Your task to perform on an android device: open sync settings in chrome Image 0: 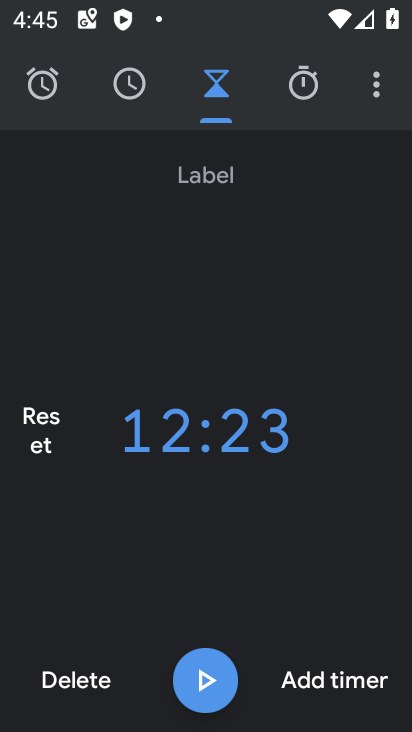
Step 0: press back button
Your task to perform on an android device: open sync settings in chrome Image 1: 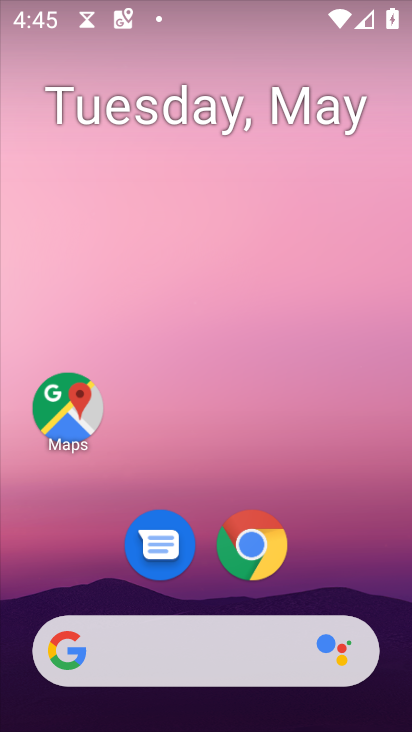
Step 1: click (254, 543)
Your task to perform on an android device: open sync settings in chrome Image 2: 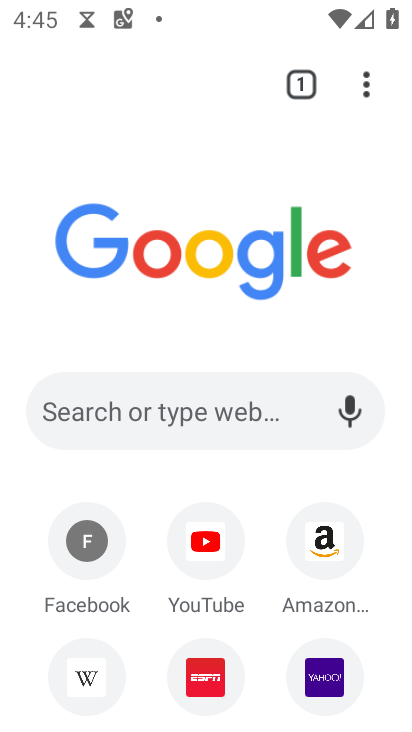
Step 2: click (364, 83)
Your task to perform on an android device: open sync settings in chrome Image 3: 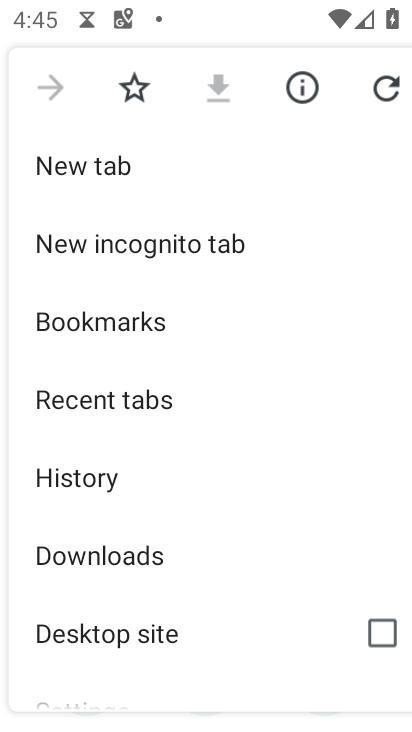
Step 3: drag from (106, 595) to (165, 418)
Your task to perform on an android device: open sync settings in chrome Image 4: 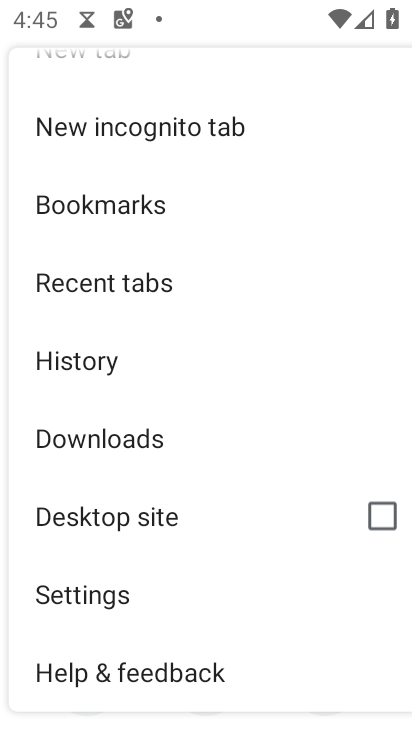
Step 4: click (77, 587)
Your task to perform on an android device: open sync settings in chrome Image 5: 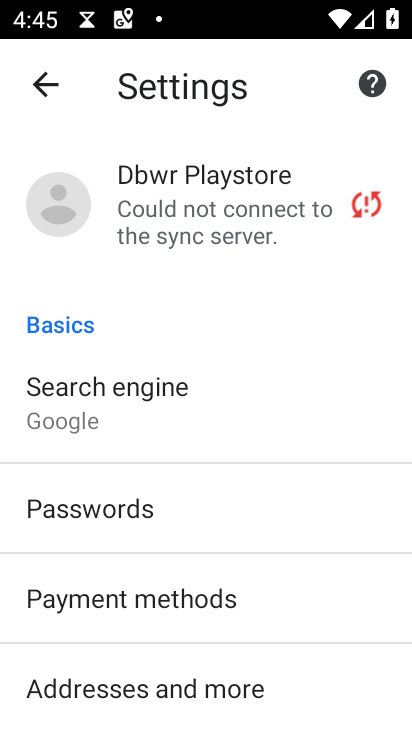
Step 5: drag from (112, 571) to (181, 434)
Your task to perform on an android device: open sync settings in chrome Image 6: 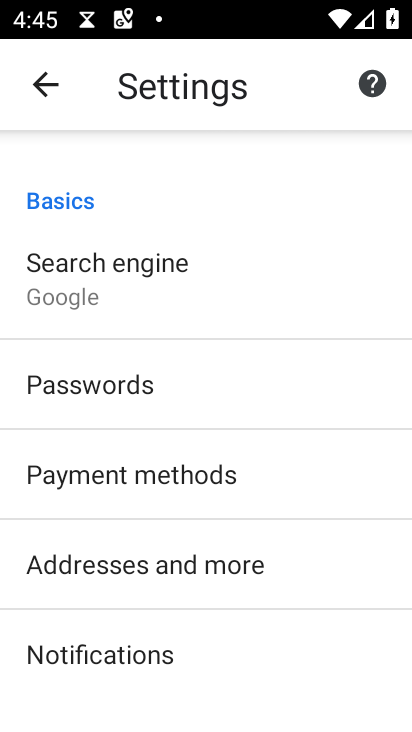
Step 6: drag from (128, 614) to (191, 483)
Your task to perform on an android device: open sync settings in chrome Image 7: 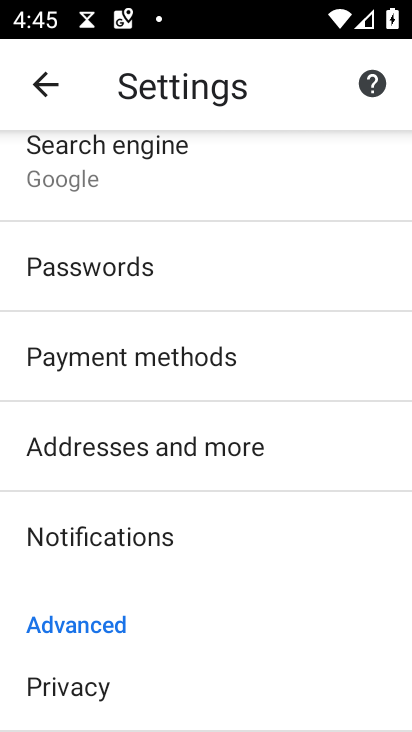
Step 7: drag from (114, 640) to (185, 514)
Your task to perform on an android device: open sync settings in chrome Image 8: 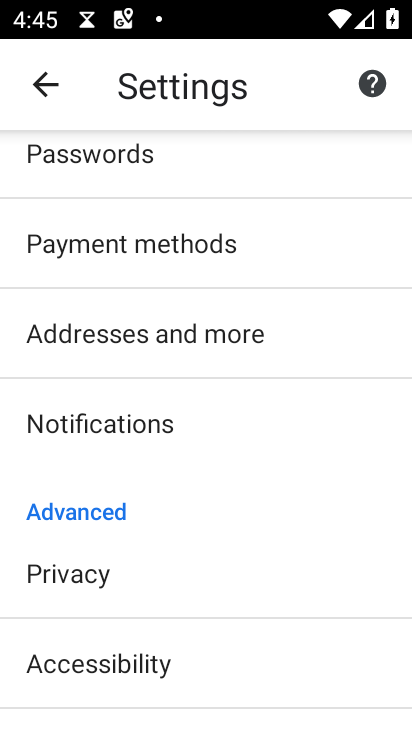
Step 8: drag from (127, 590) to (204, 472)
Your task to perform on an android device: open sync settings in chrome Image 9: 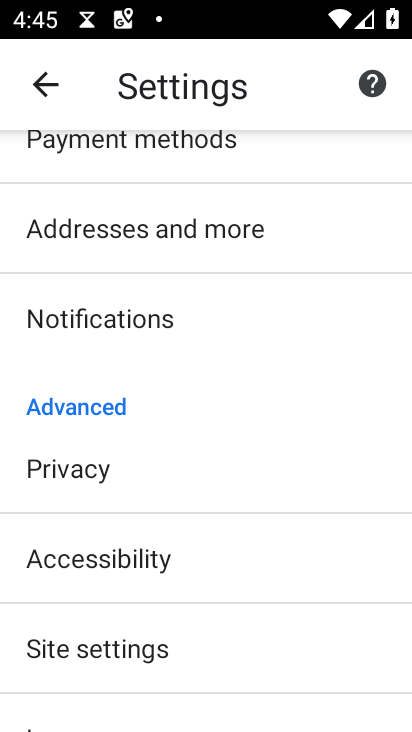
Step 9: click (94, 650)
Your task to perform on an android device: open sync settings in chrome Image 10: 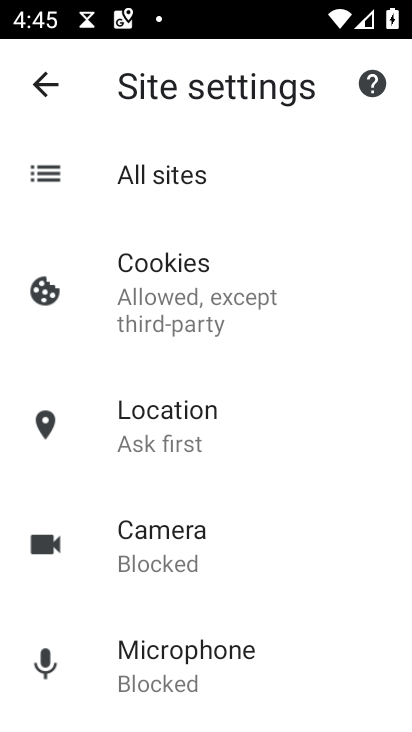
Step 10: drag from (249, 594) to (283, 447)
Your task to perform on an android device: open sync settings in chrome Image 11: 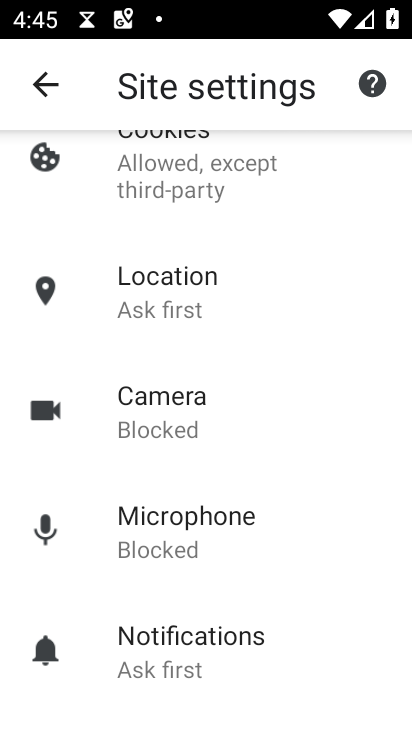
Step 11: drag from (193, 586) to (264, 444)
Your task to perform on an android device: open sync settings in chrome Image 12: 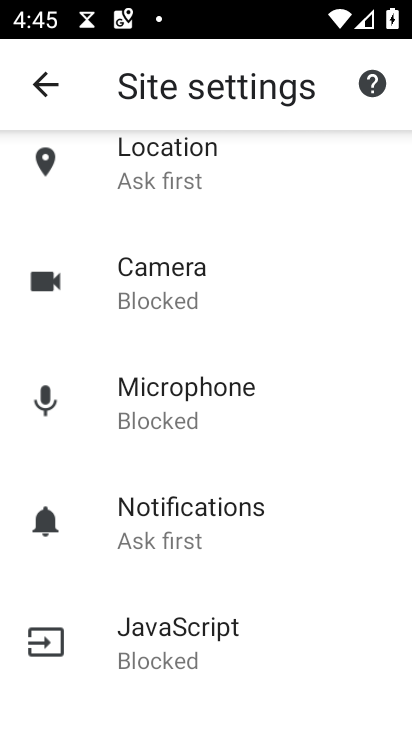
Step 12: drag from (182, 590) to (246, 457)
Your task to perform on an android device: open sync settings in chrome Image 13: 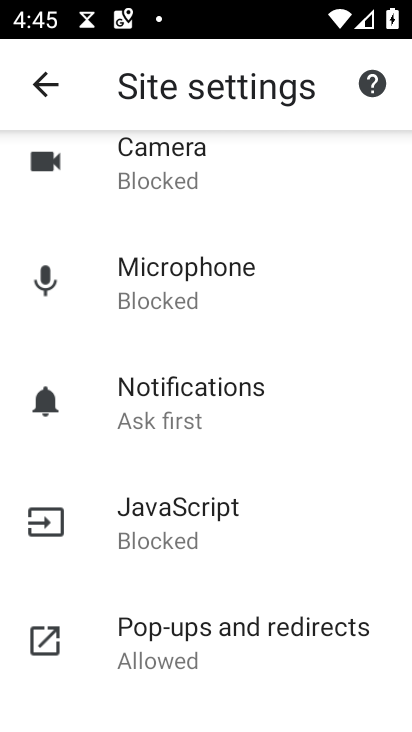
Step 13: drag from (208, 680) to (248, 523)
Your task to perform on an android device: open sync settings in chrome Image 14: 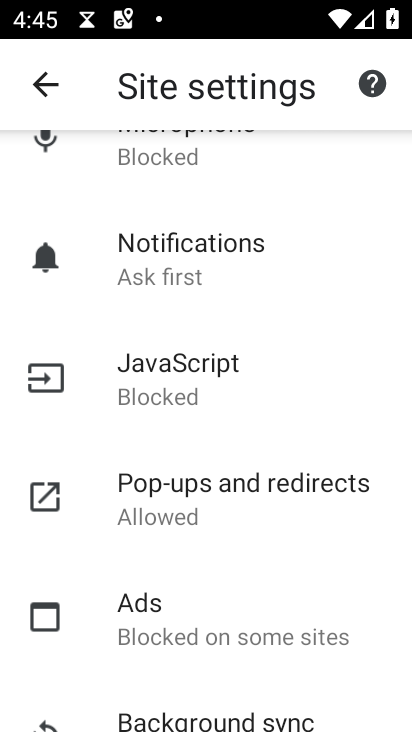
Step 14: drag from (178, 677) to (272, 546)
Your task to perform on an android device: open sync settings in chrome Image 15: 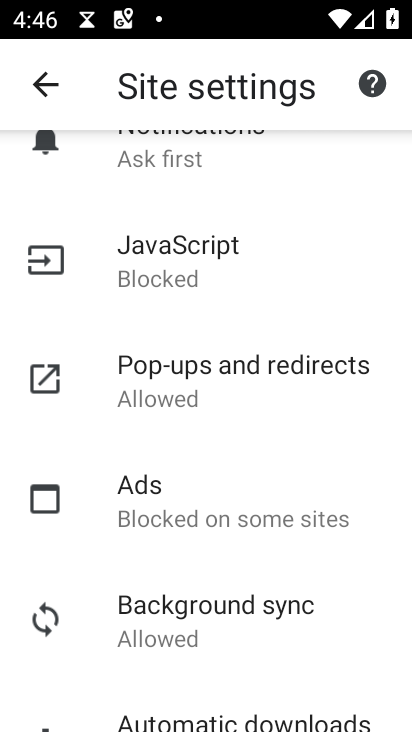
Step 15: click (292, 604)
Your task to perform on an android device: open sync settings in chrome Image 16: 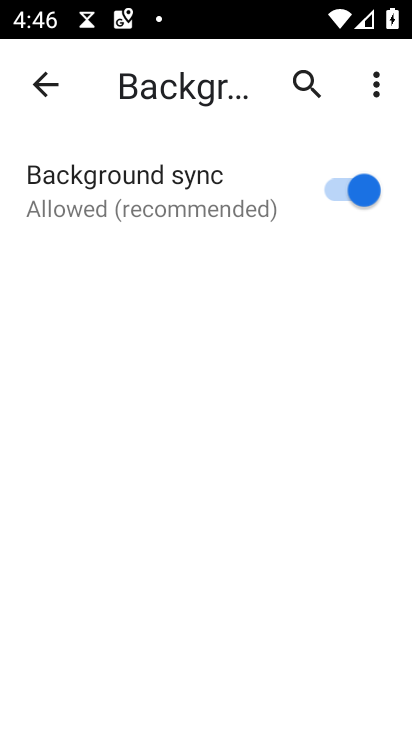
Step 16: task complete